Your task to perform on an android device: check battery use Image 0: 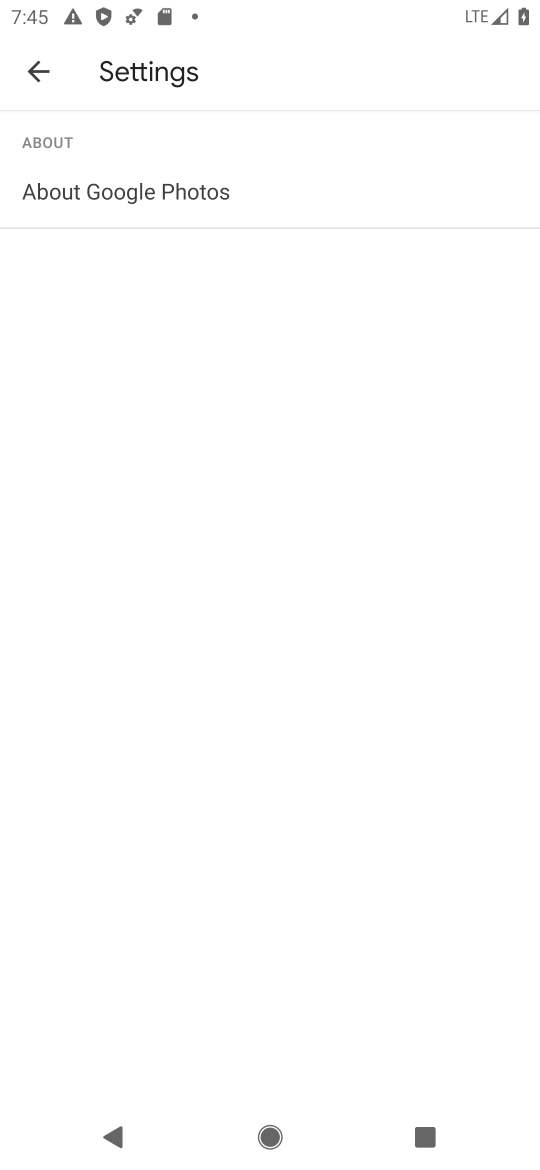
Step 0: press home button
Your task to perform on an android device: check battery use Image 1: 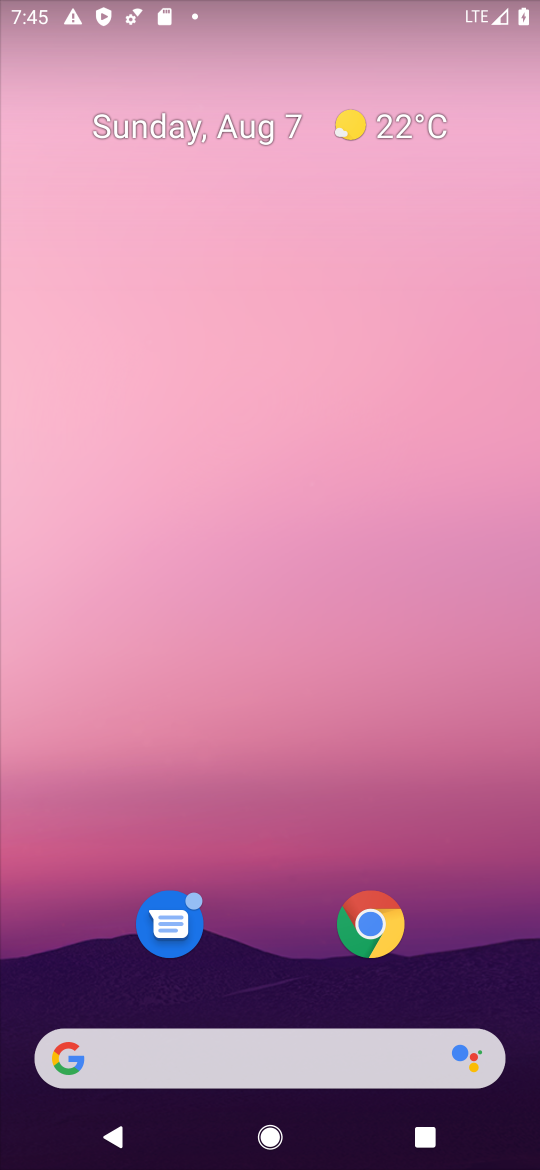
Step 1: drag from (284, 917) to (315, 2)
Your task to perform on an android device: check battery use Image 2: 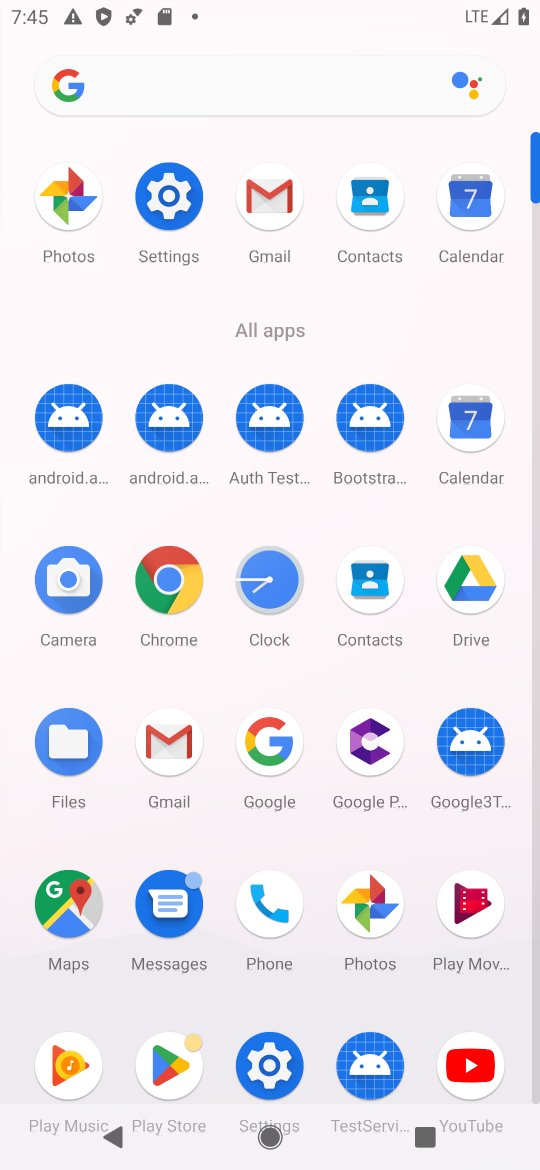
Step 2: click (174, 195)
Your task to perform on an android device: check battery use Image 3: 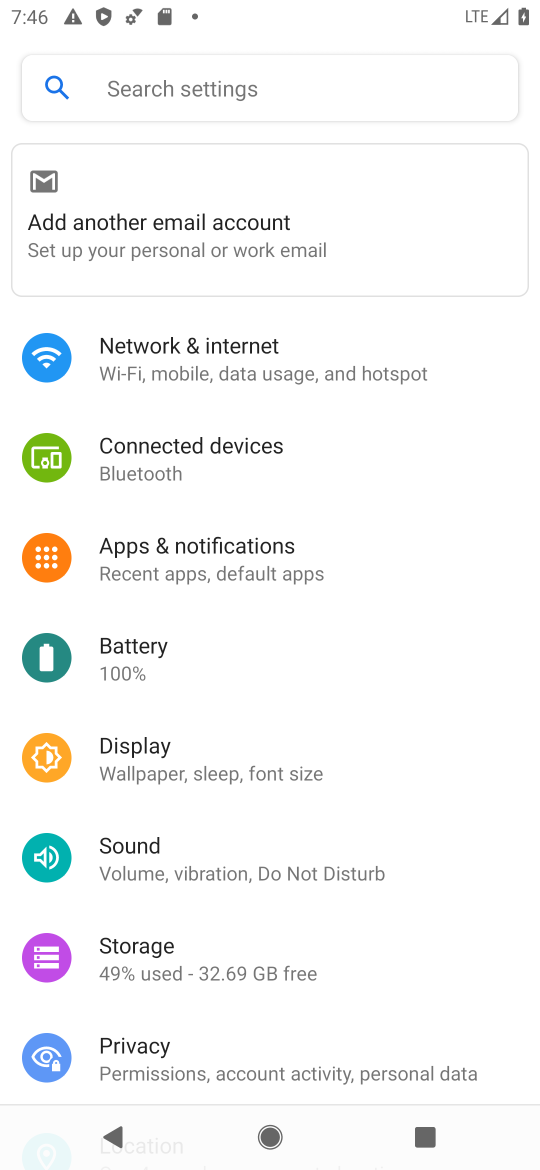
Step 3: click (160, 640)
Your task to perform on an android device: check battery use Image 4: 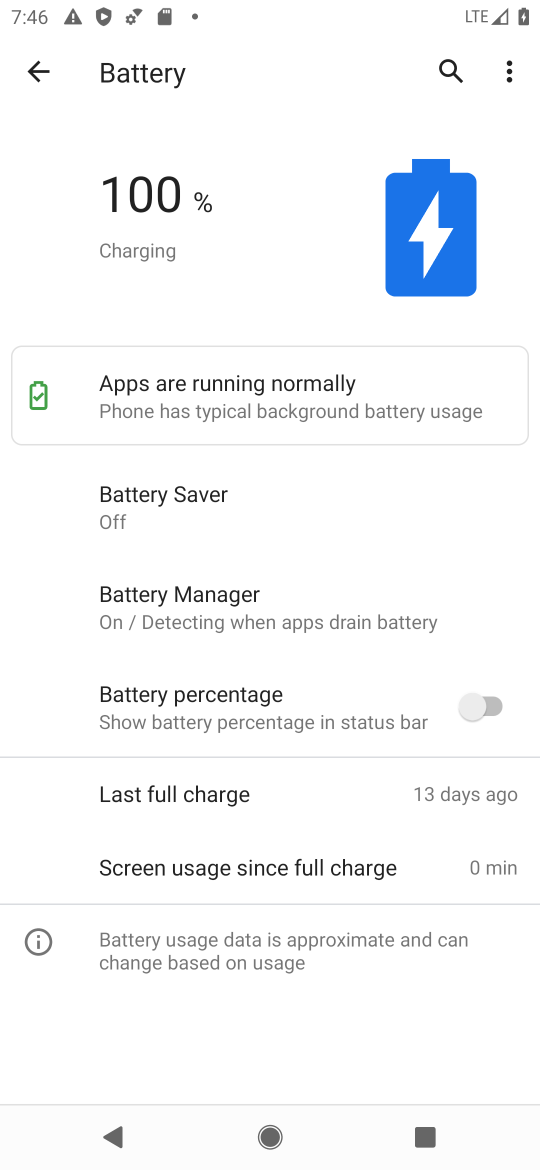
Step 4: click (504, 74)
Your task to perform on an android device: check battery use Image 5: 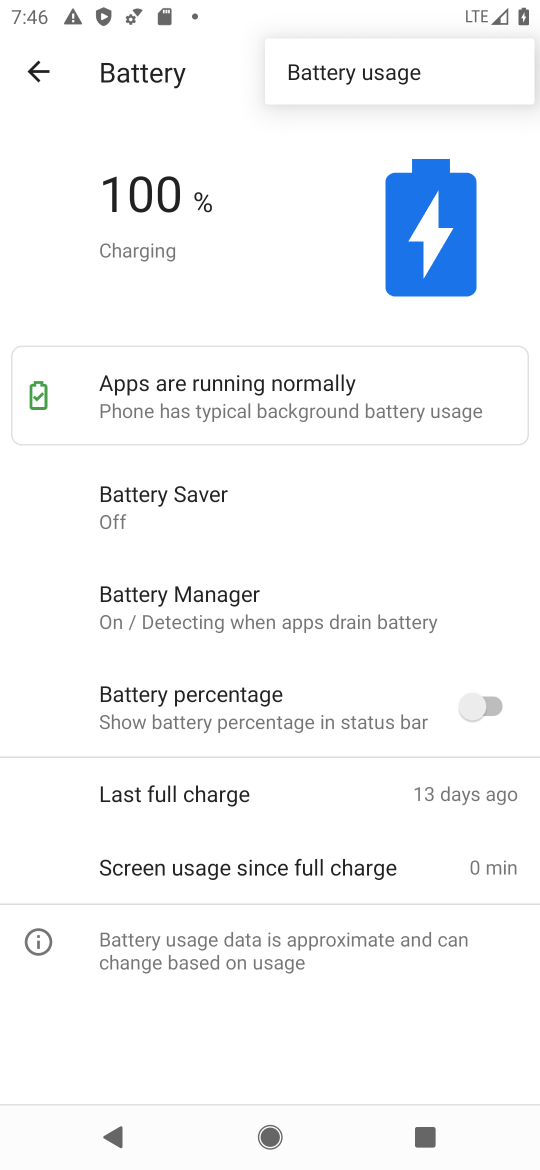
Step 5: click (371, 67)
Your task to perform on an android device: check battery use Image 6: 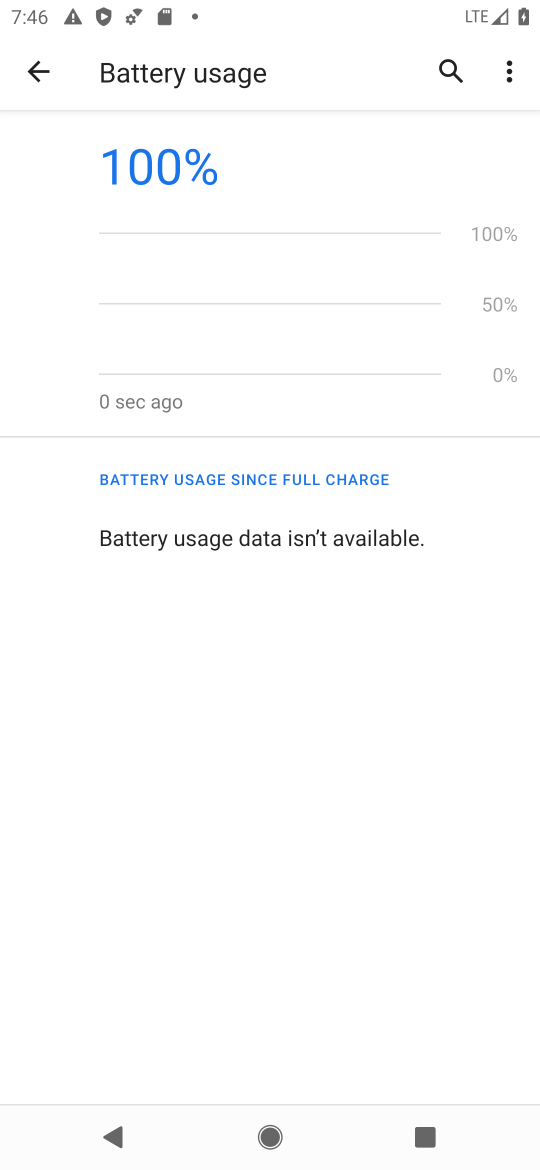
Step 6: task complete